Your task to perform on an android device: Open Youtube and go to "Your channel" Image 0: 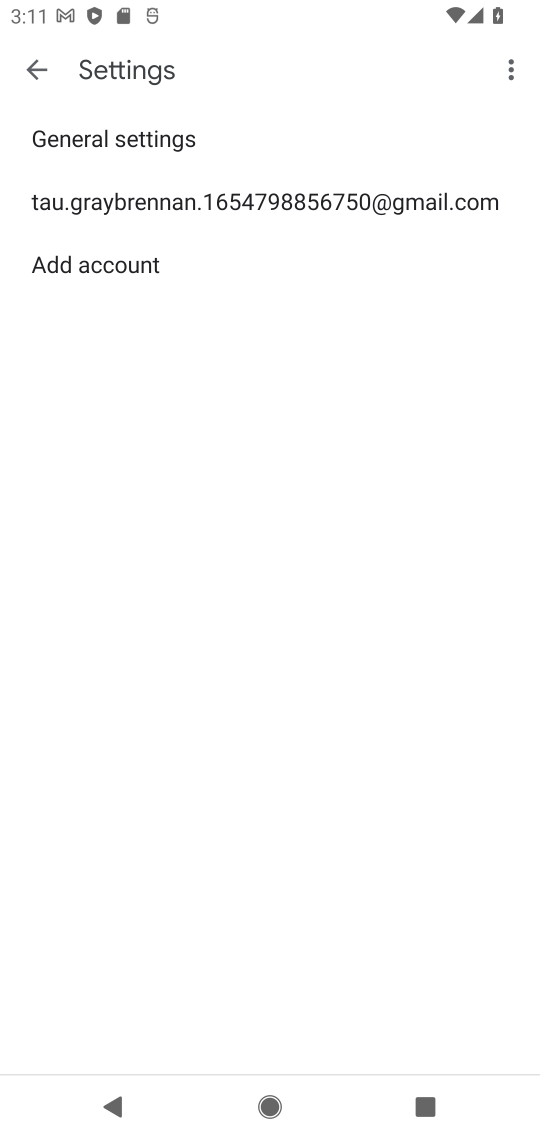
Step 0: press home button
Your task to perform on an android device: Open Youtube and go to "Your channel" Image 1: 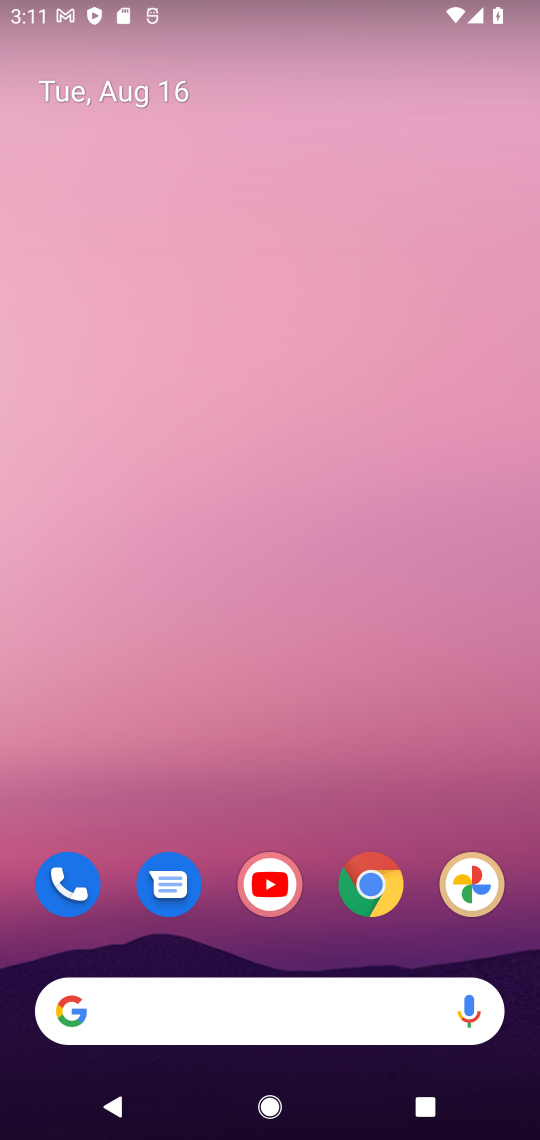
Step 1: click (275, 880)
Your task to perform on an android device: Open Youtube and go to "Your channel" Image 2: 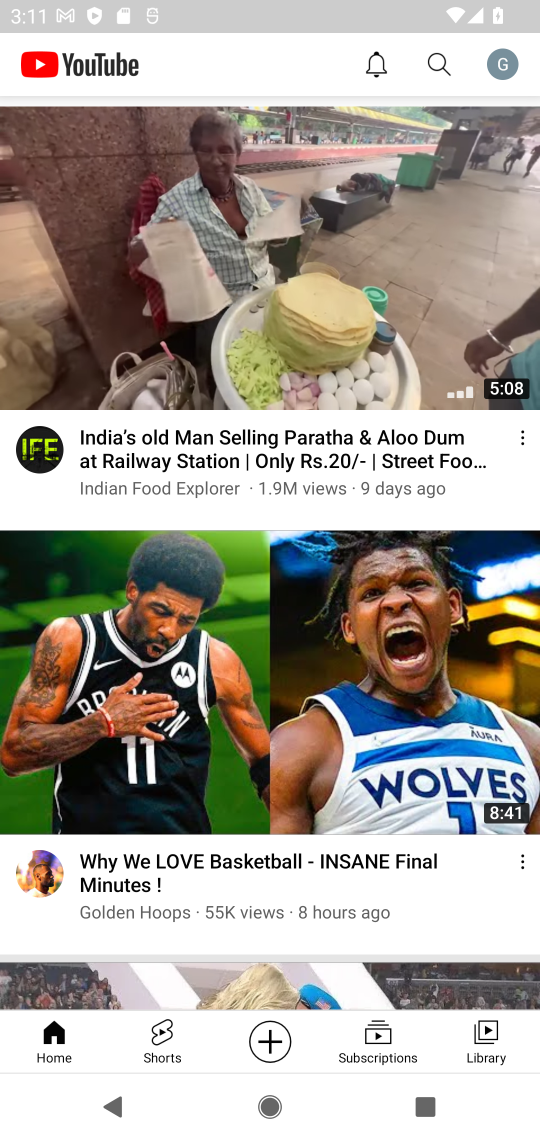
Step 2: click (509, 75)
Your task to perform on an android device: Open Youtube and go to "Your channel" Image 3: 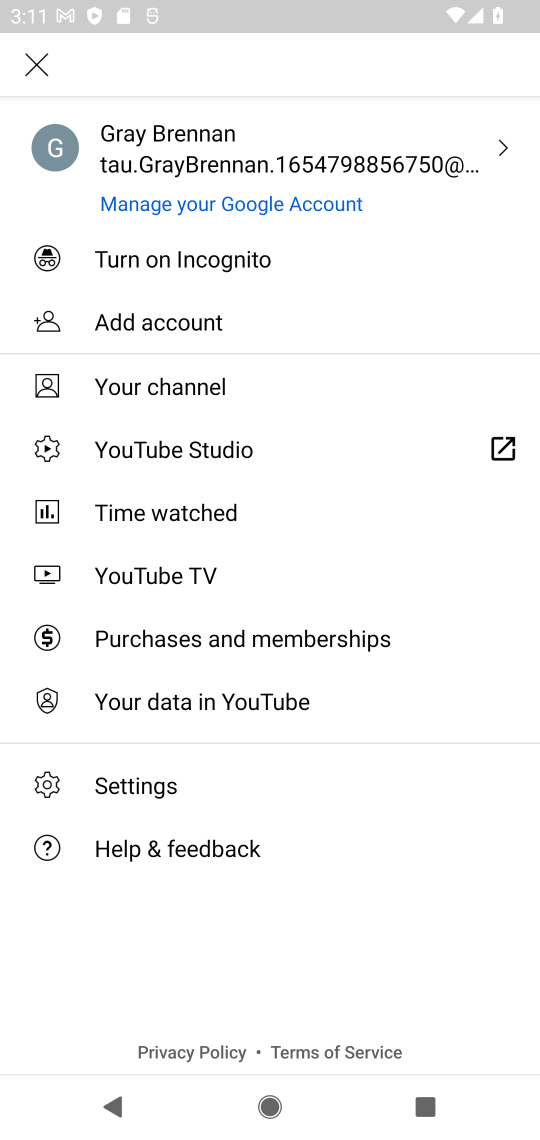
Step 3: click (185, 370)
Your task to perform on an android device: Open Youtube and go to "Your channel" Image 4: 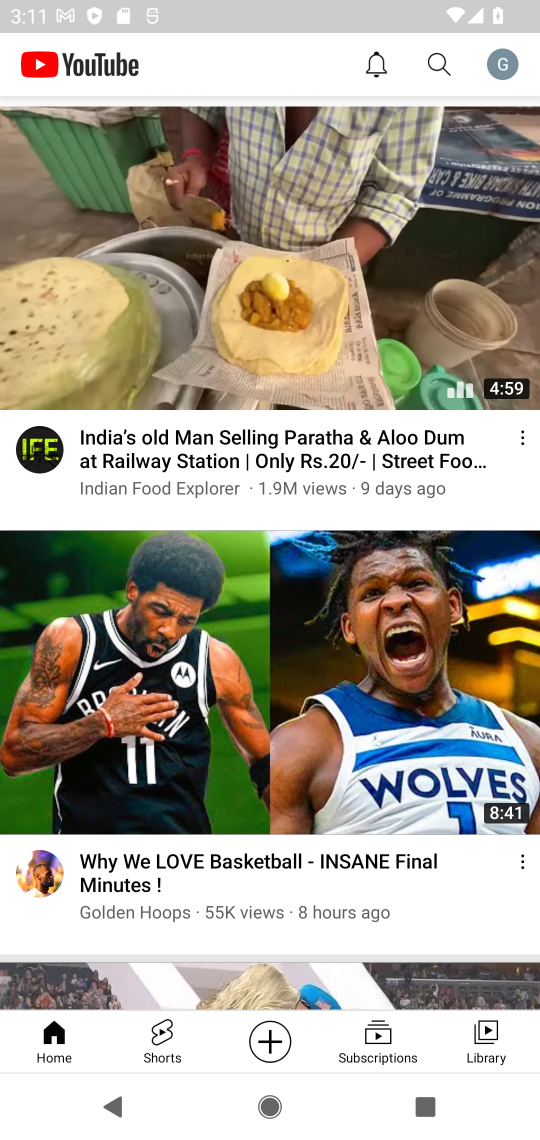
Step 4: task complete